Your task to perform on an android device: Open Google Image 0: 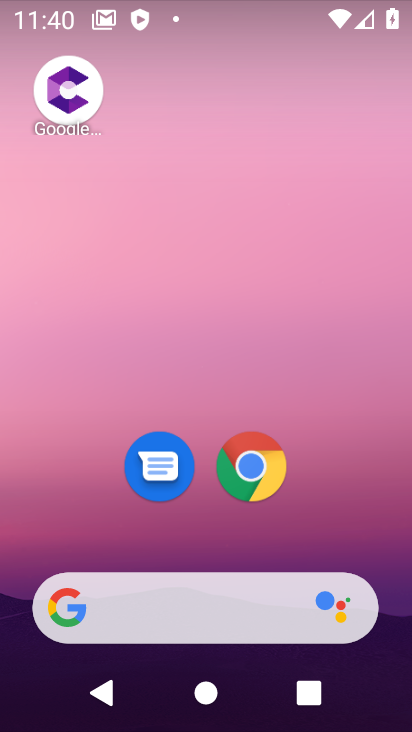
Step 0: drag from (106, 531) to (122, 137)
Your task to perform on an android device: Open Google Image 1: 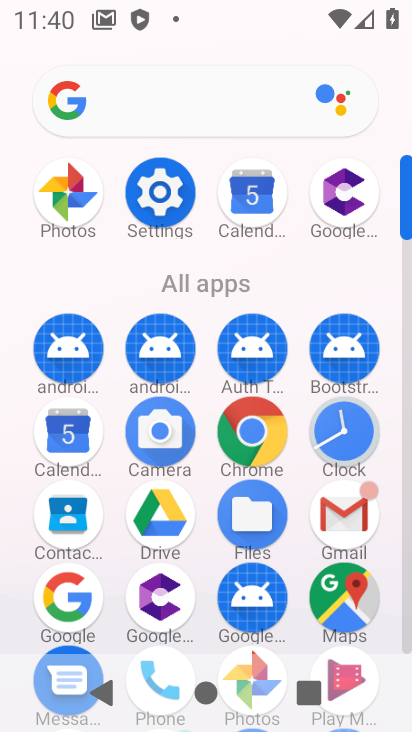
Step 1: drag from (203, 643) to (231, 343)
Your task to perform on an android device: Open Google Image 2: 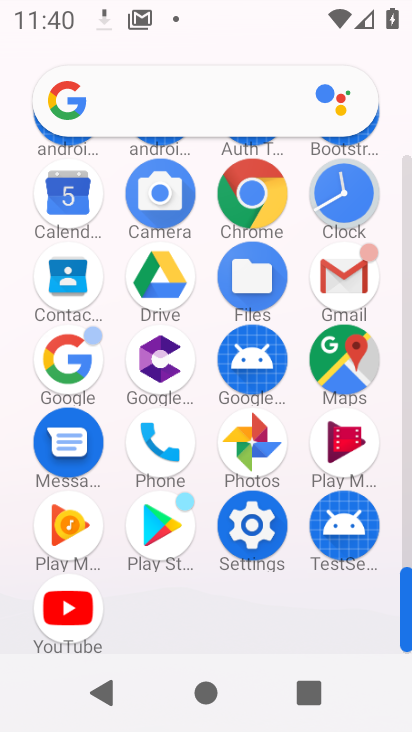
Step 2: click (66, 370)
Your task to perform on an android device: Open Google Image 3: 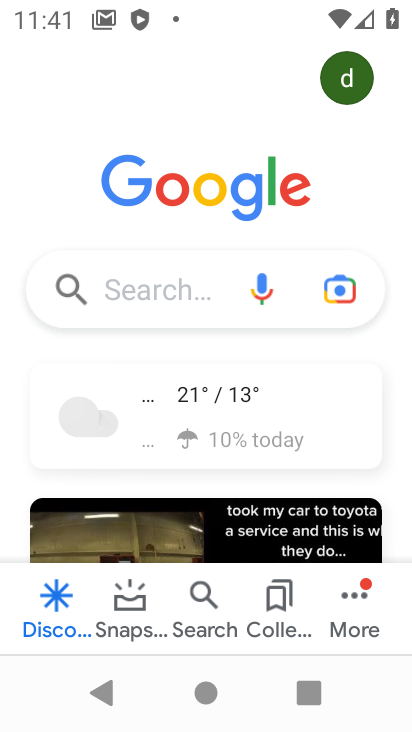
Step 3: task complete